Your task to perform on an android device: Check the weather Image 0: 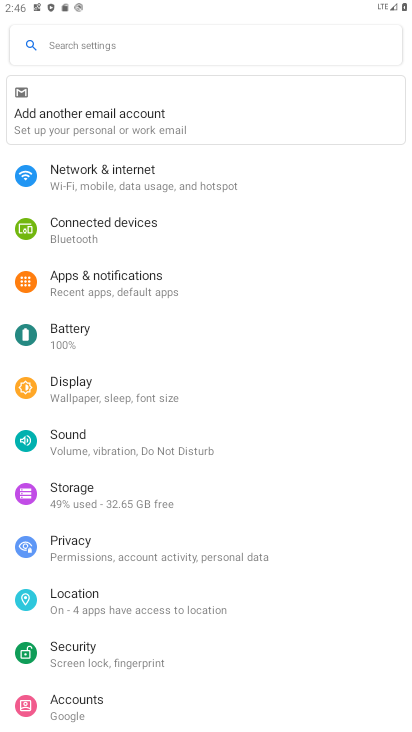
Step 0: press home button
Your task to perform on an android device: Check the weather Image 1: 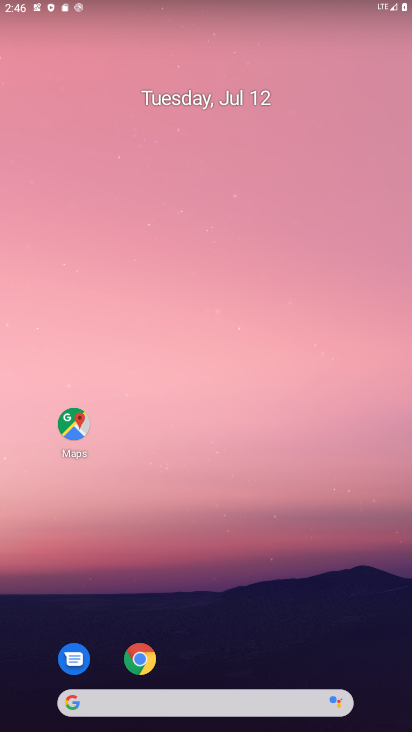
Step 1: drag from (226, 731) to (239, 96)
Your task to perform on an android device: Check the weather Image 2: 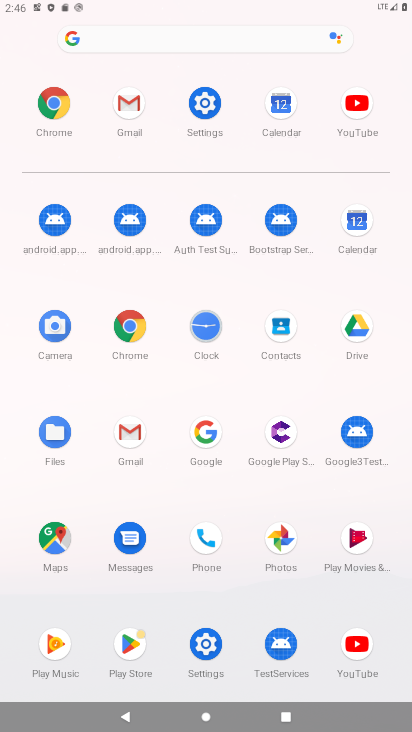
Step 2: click (207, 427)
Your task to perform on an android device: Check the weather Image 3: 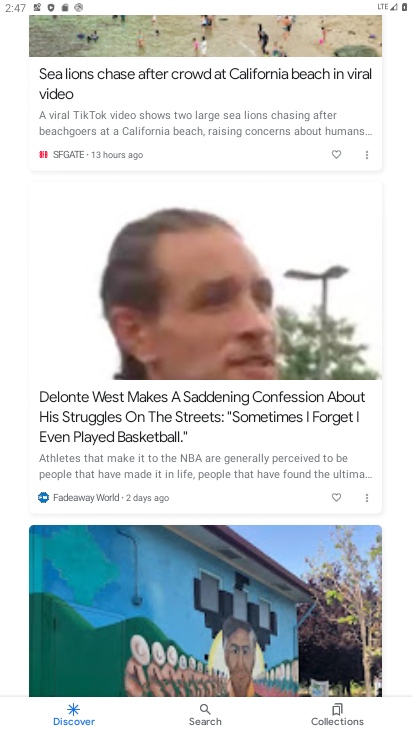
Step 3: drag from (240, 115) to (243, 525)
Your task to perform on an android device: Check the weather Image 4: 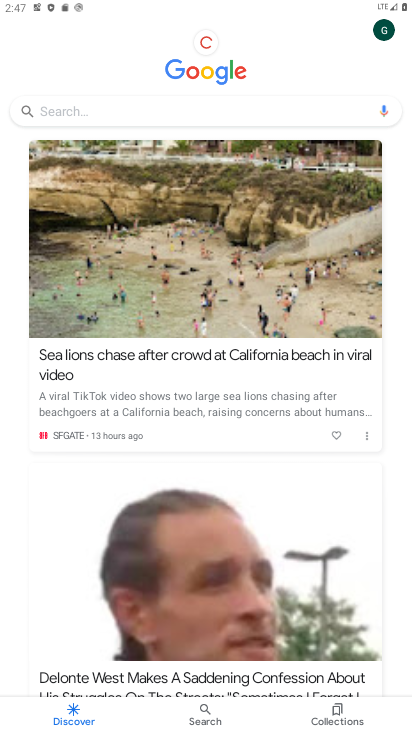
Step 4: click (130, 111)
Your task to perform on an android device: Check the weather Image 5: 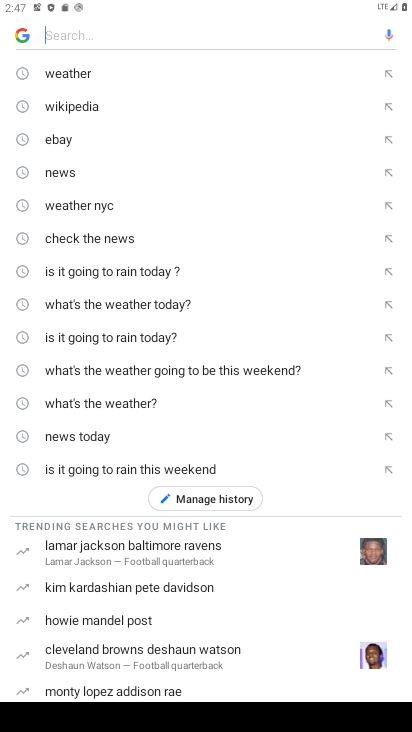
Step 5: click (72, 74)
Your task to perform on an android device: Check the weather Image 6: 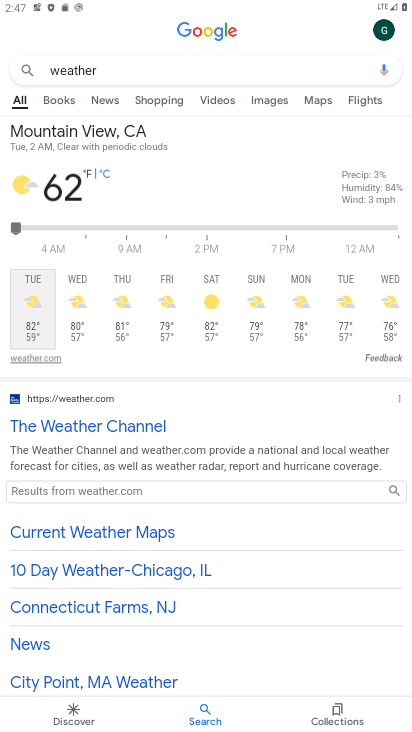
Step 6: task complete